Your task to perform on an android device: Is it going to rain this weekend? Image 0: 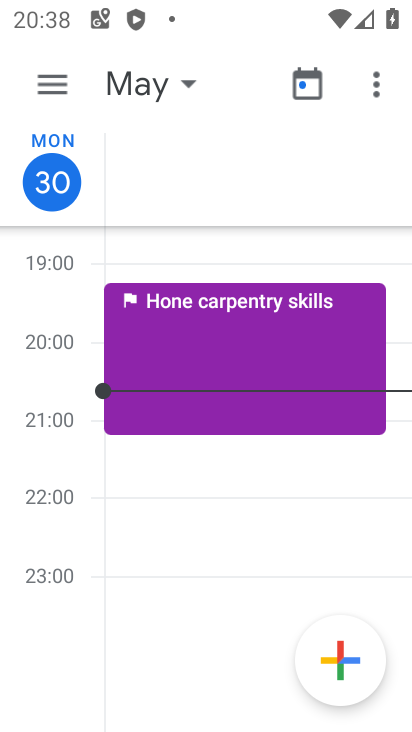
Step 0: press home button
Your task to perform on an android device: Is it going to rain this weekend? Image 1: 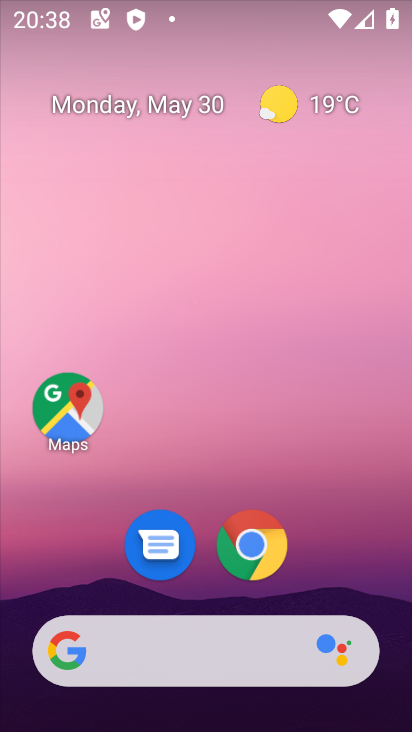
Step 1: click (156, 674)
Your task to perform on an android device: Is it going to rain this weekend? Image 2: 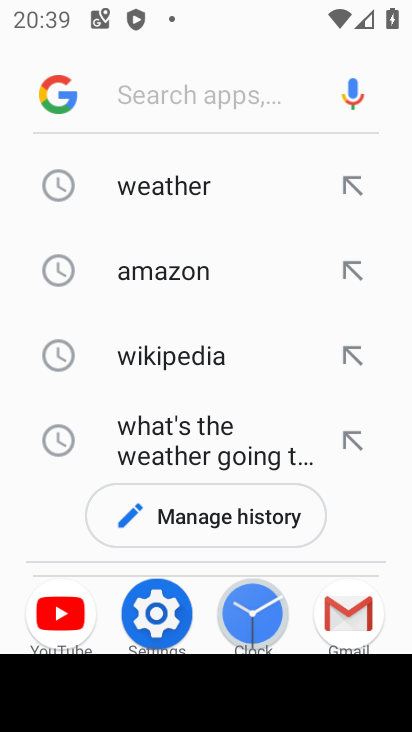
Step 2: click (162, 193)
Your task to perform on an android device: Is it going to rain this weekend? Image 3: 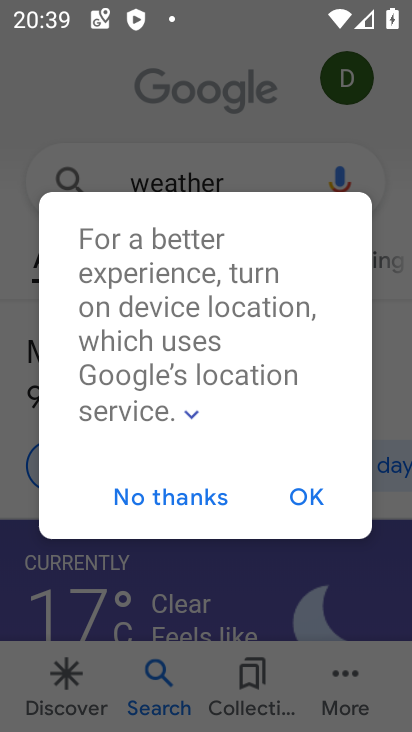
Step 3: click (308, 491)
Your task to perform on an android device: Is it going to rain this weekend? Image 4: 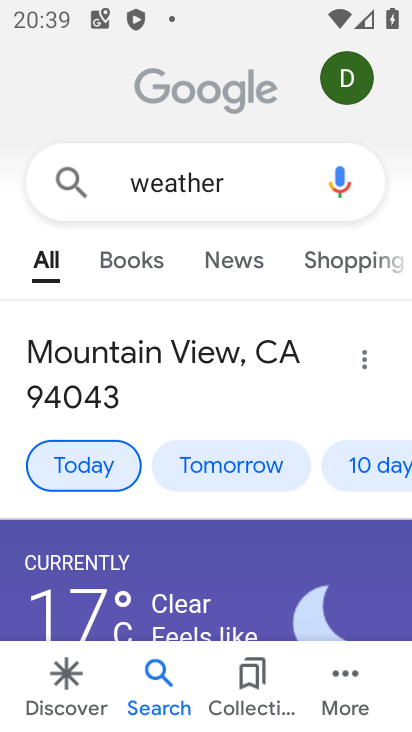
Step 4: click (356, 480)
Your task to perform on an android device: Is it going to rain this weekend? Image 5: 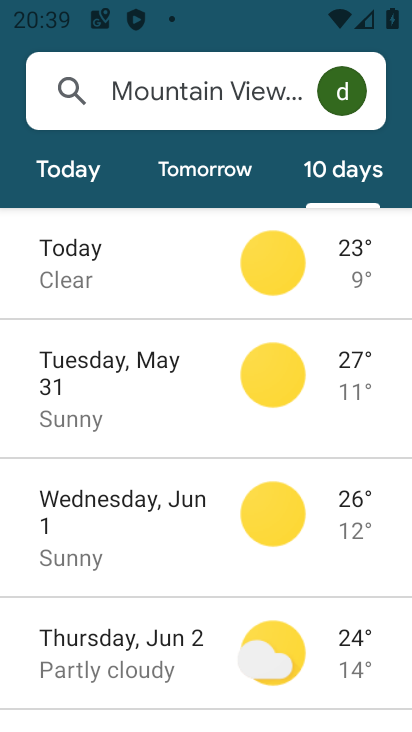
Step 5: task complete